Your task to perform on an android device: Clear the cart on bestbuy. Image 0: 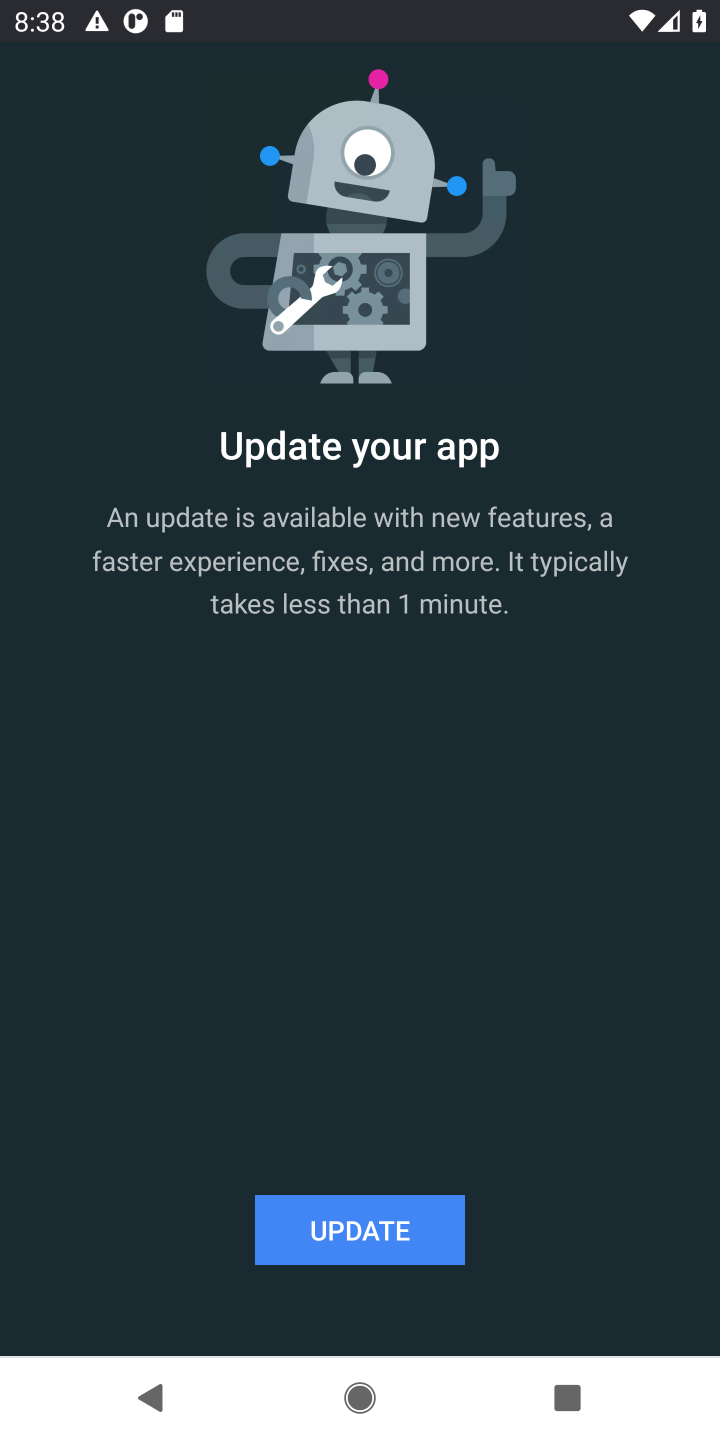
Step 0: press home button
Your task to perform on an android device: Clear the cart on bestbuy. Image 1: 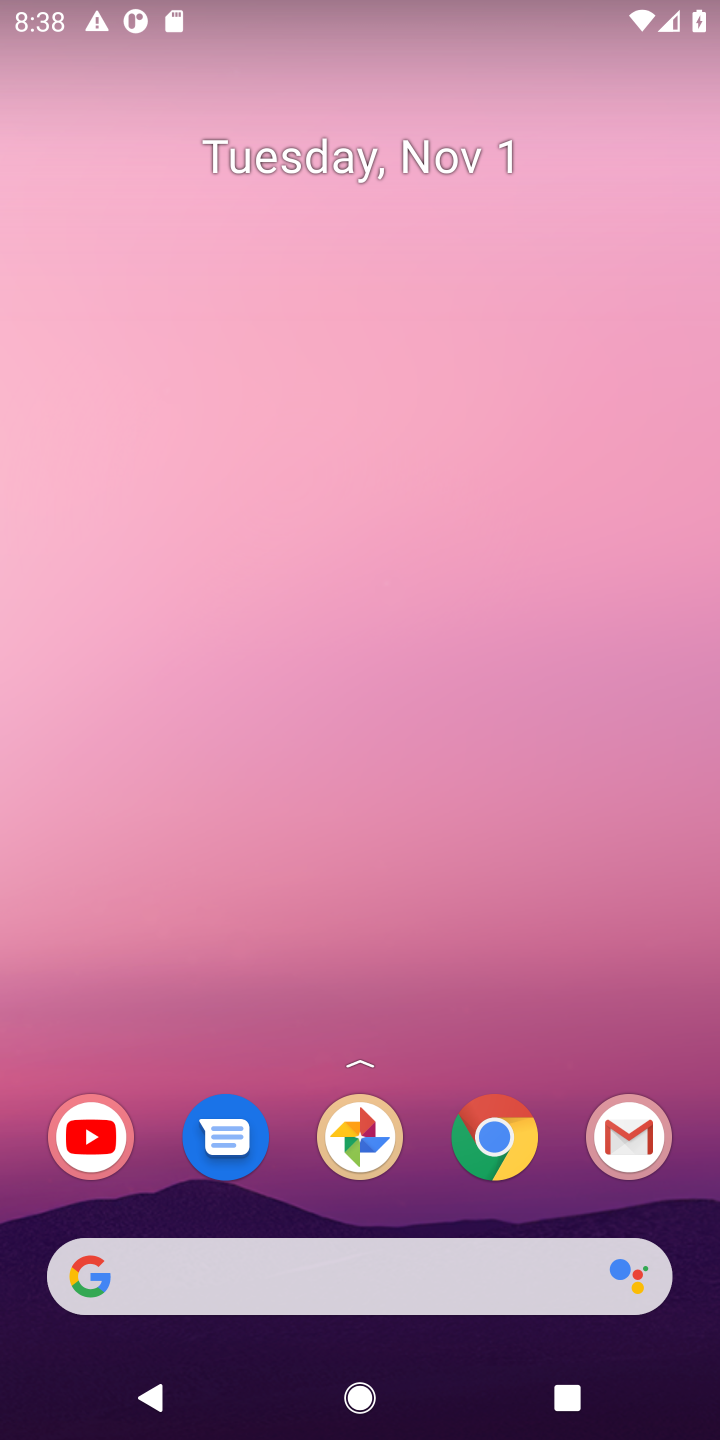
Step 1: click (411, 1283)
Your task to perform on an android device: Clear the cart on bestbuy. Image 2: 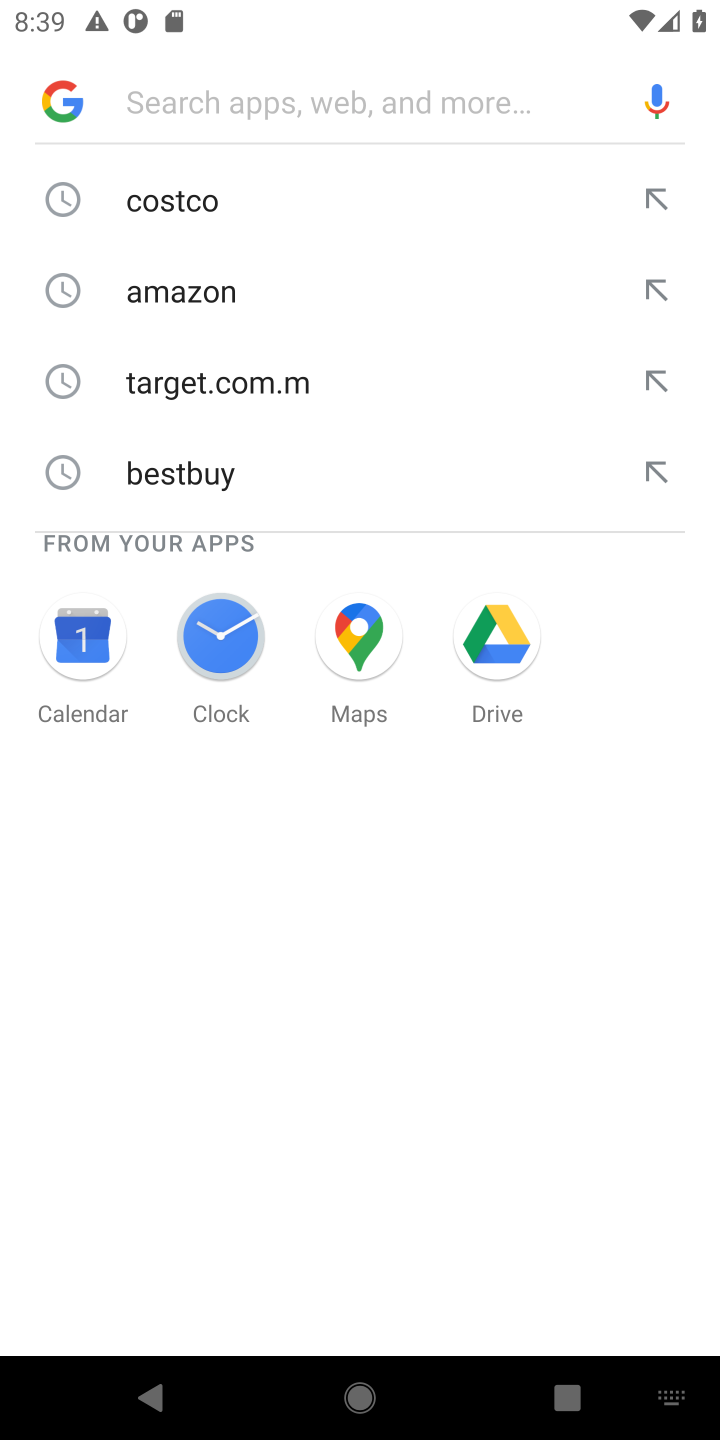
Step 2: type "bestbuy"
Your task to perform on an android device: Clear the cart on bestbuy. Image 3: 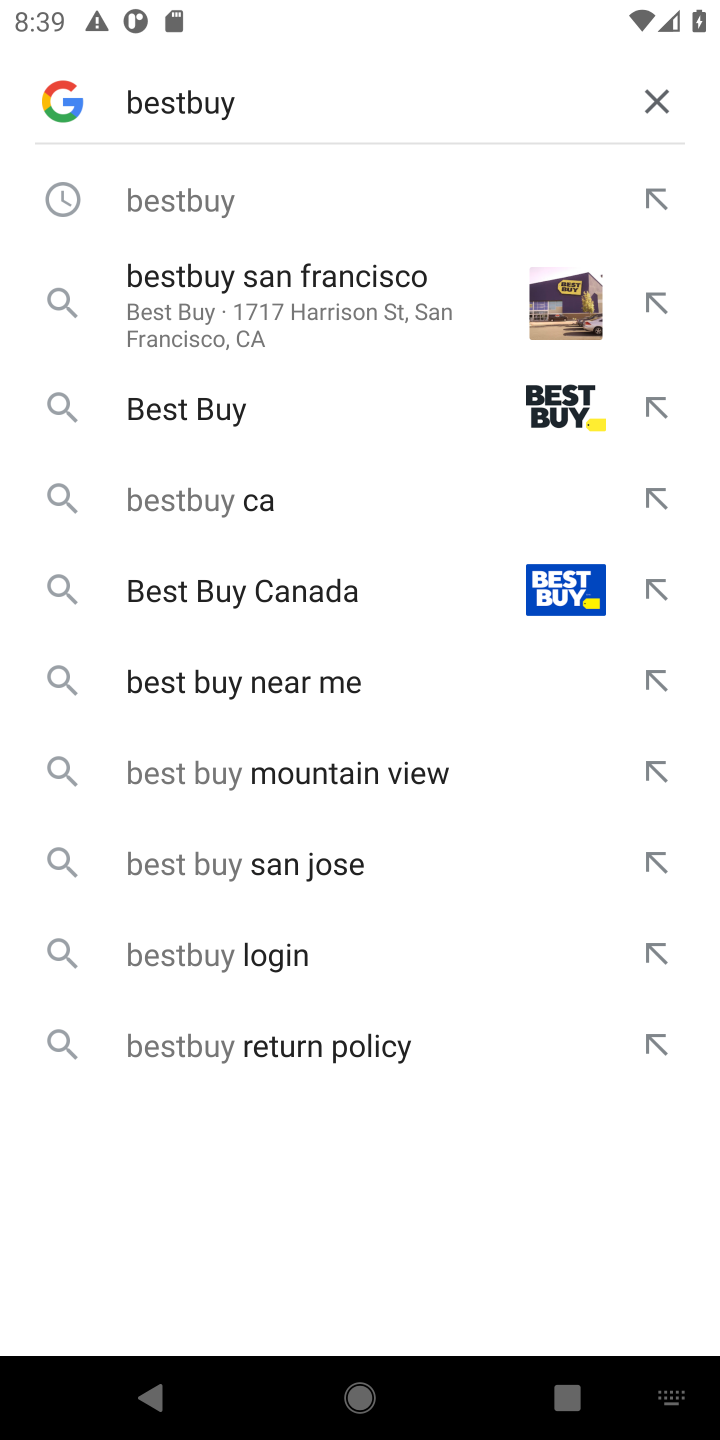
Step 3: click (186, 211)
Your task to perform on an android device: Clear the cart on bestbuy. Image 4: 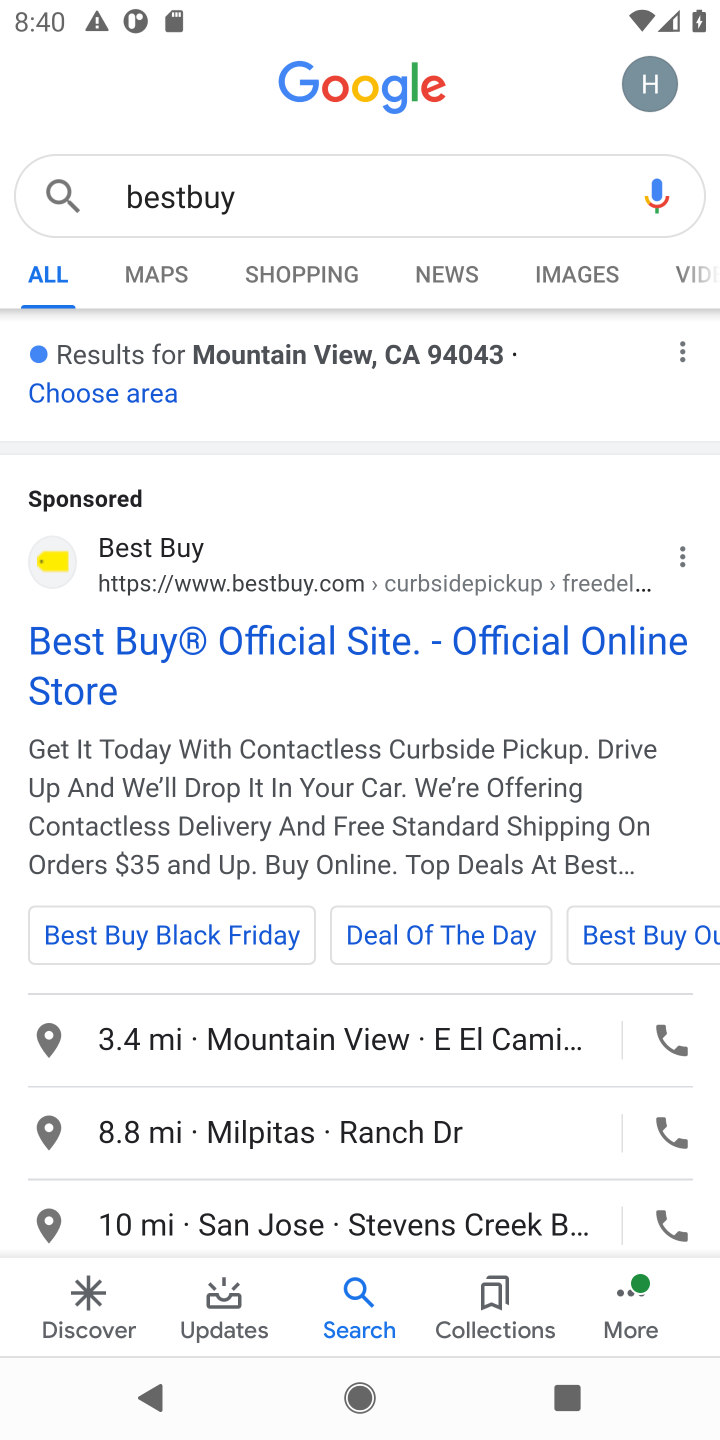
Step 4: click (184, 540)
Your task to perform on an android device: Clear the cart on bestbuy. Image 5: 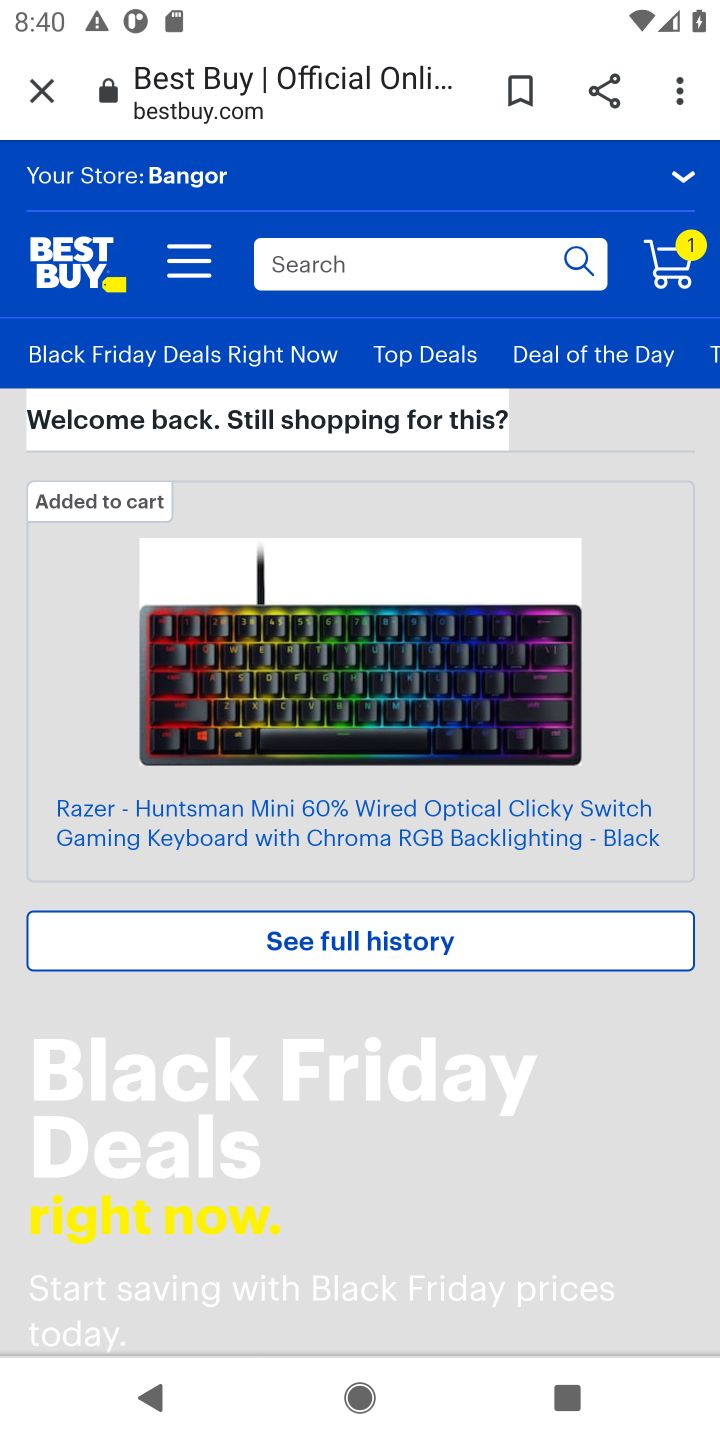
Step 5: click (678, 274)
Your task to perform on an android device: Clear the cart on bestbuy. Image 6: 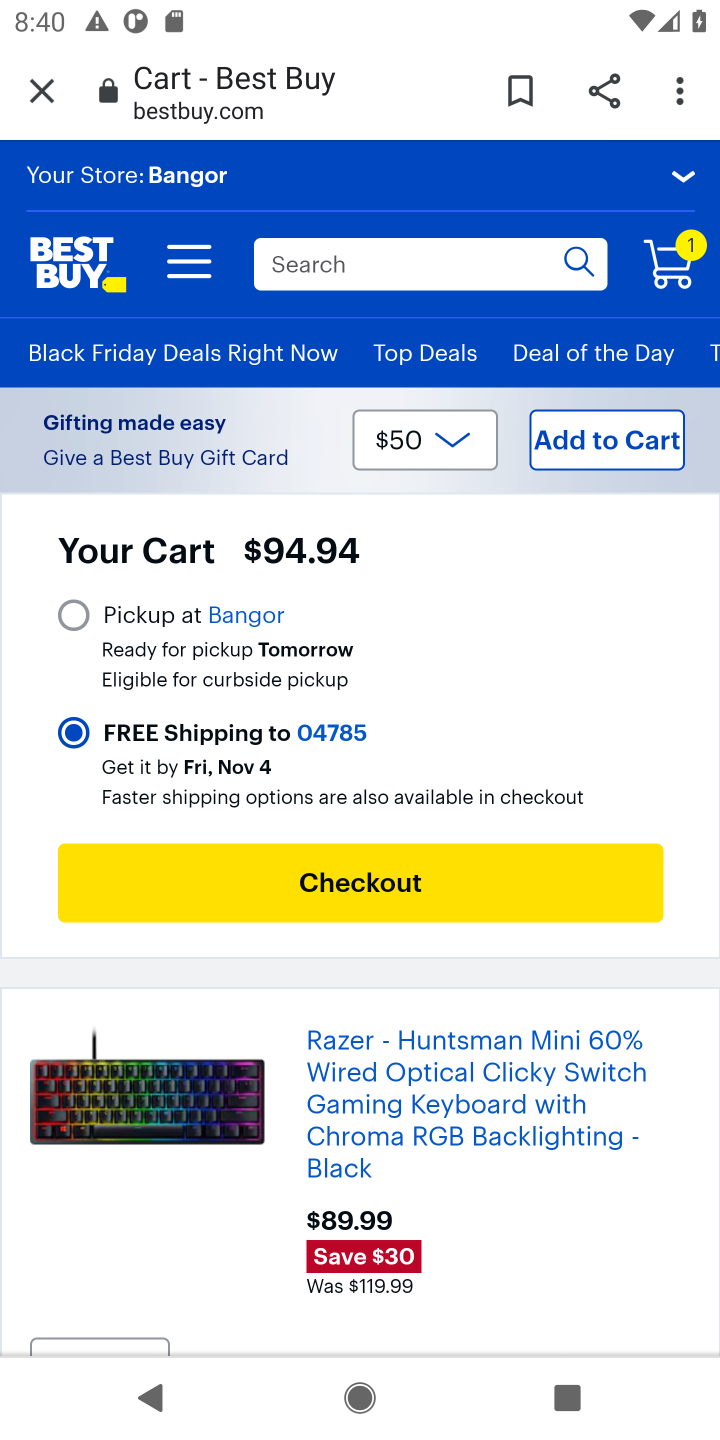
Step 6: drag from (380, 945) to (383, 648)
Your task to perform on an android device: Clear the cart on bestbuy. Image 7: 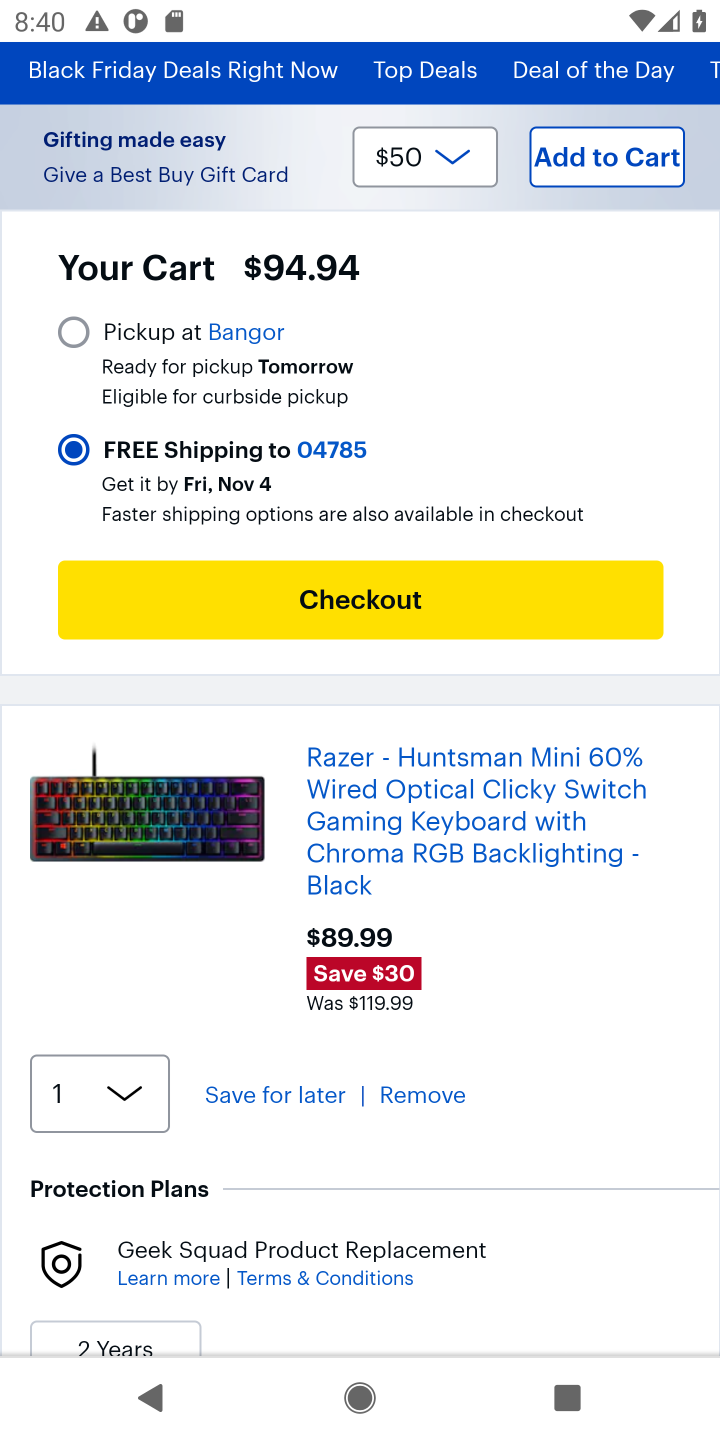
Step 7: drag from (498, 915) to (479, 662)
Your task to perform on an android device: Clear the cart on bestbuy. Image 8: 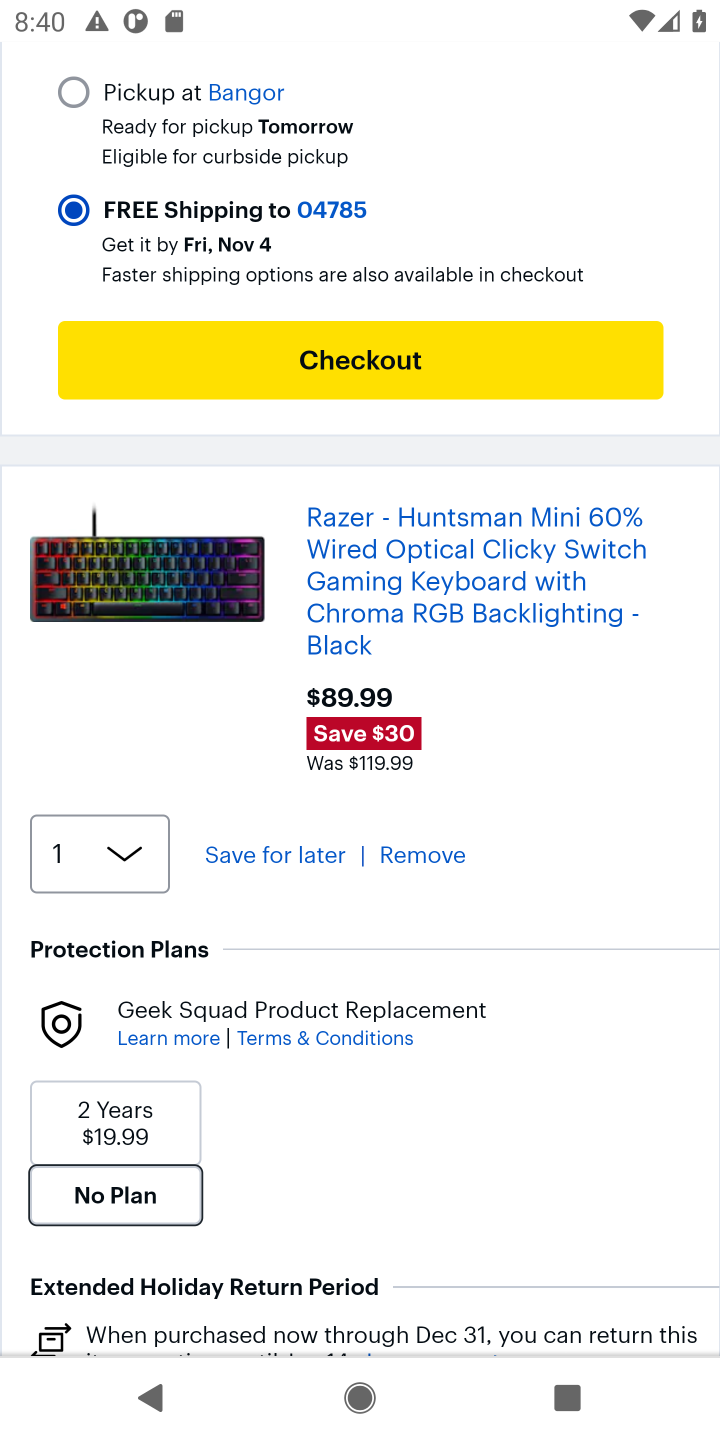
Step 8: click (411, 848)
Your task to perform on an android device: Clear the cart on bestbuy. Image 9: 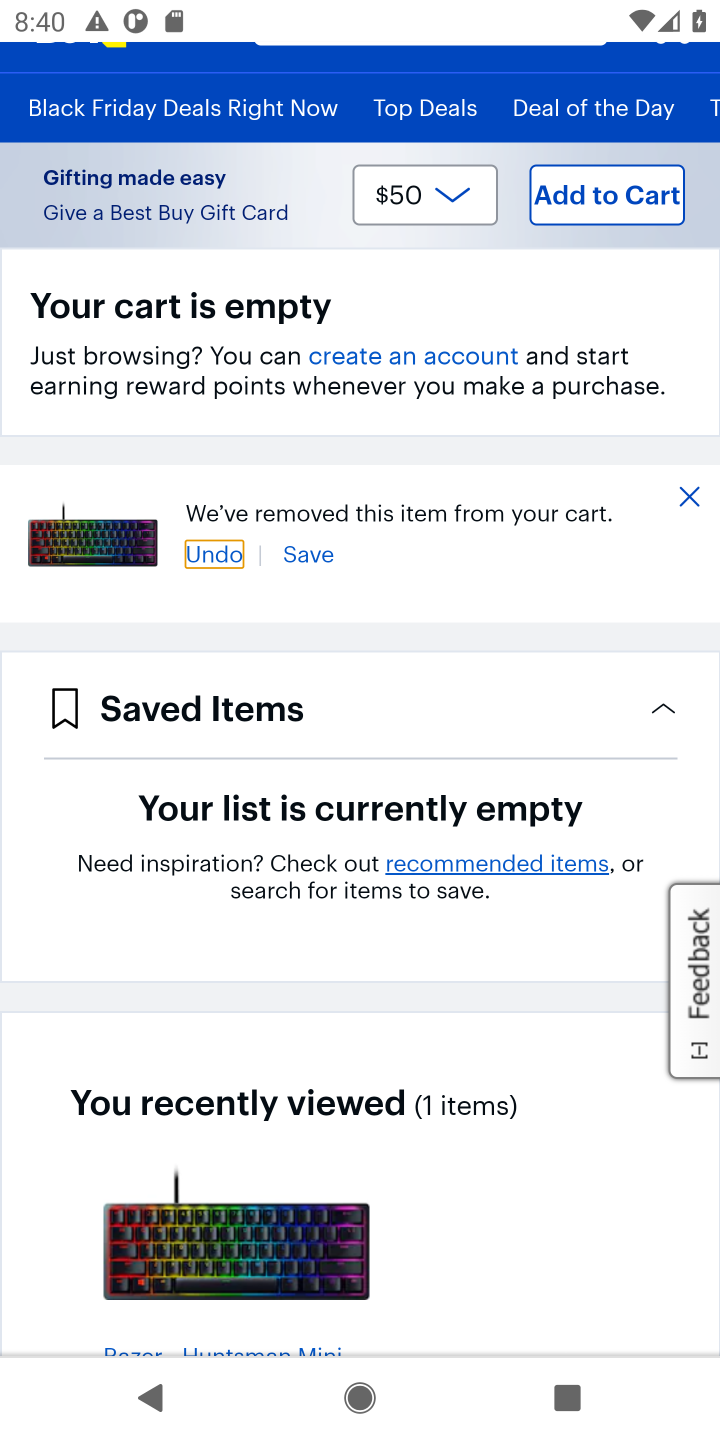
Step 9: click (680, 493)
Your task to perform on an android device: Clear the cart on bestbuy. Image 10: 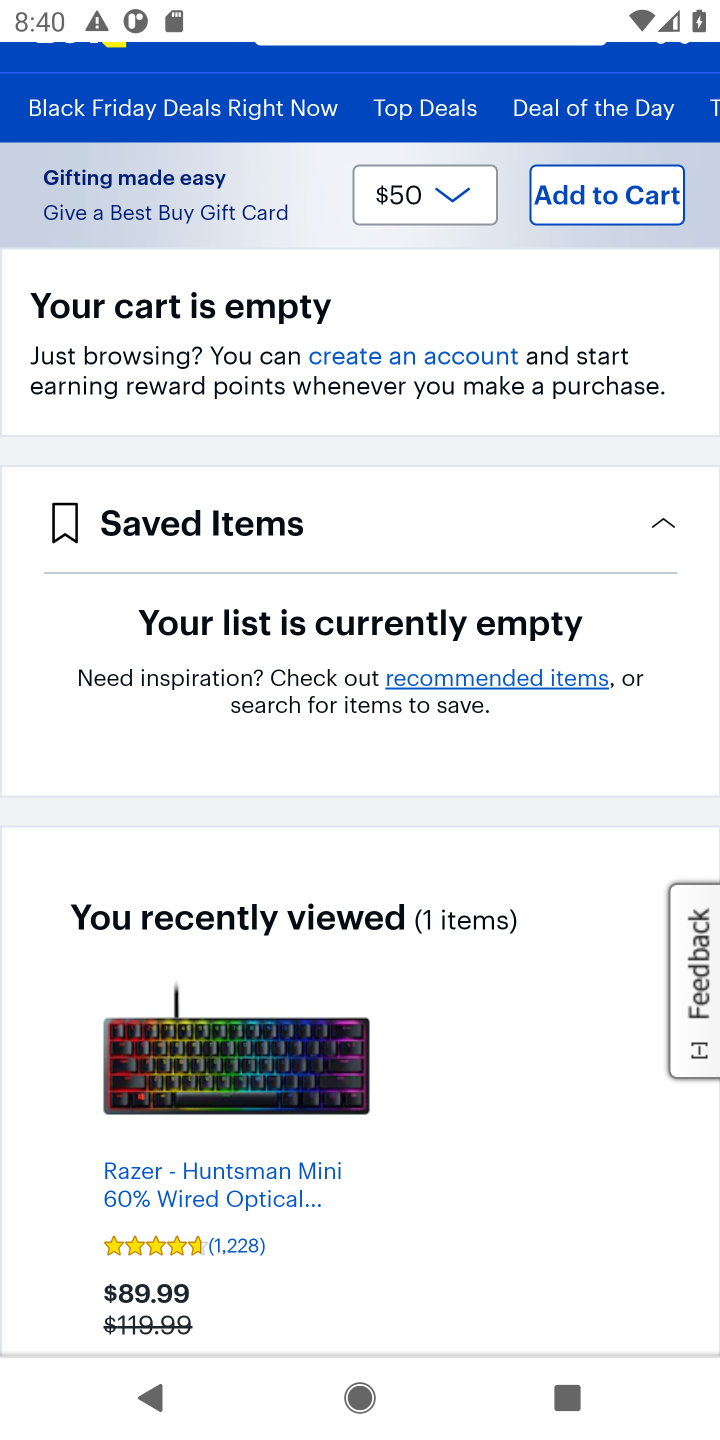
Step 10: task complete